Your task to perform on an android device: turn on translation in the chrome app Image 0: 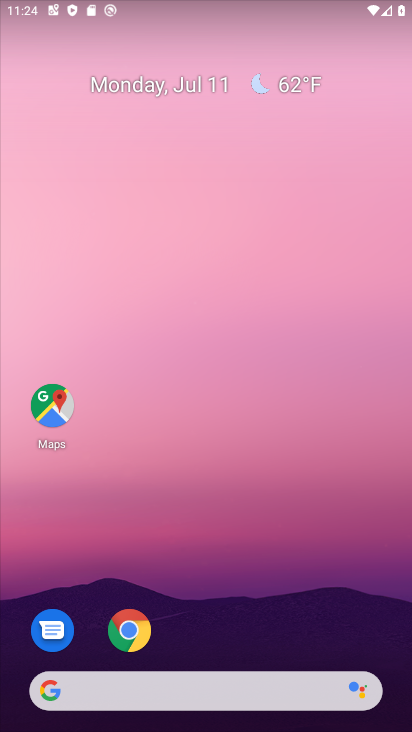
Step 0: drag from (207, 699) to (271, 30)
Your task to perform on an android device: turn on translation in the chrome app Image 1: 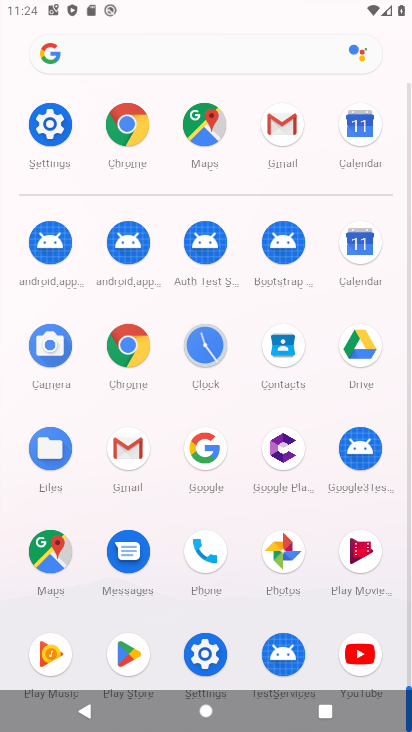
Step 1: click (131, 344)
Your task to perform on an android device: turn on translation in the chrome app Image 2: 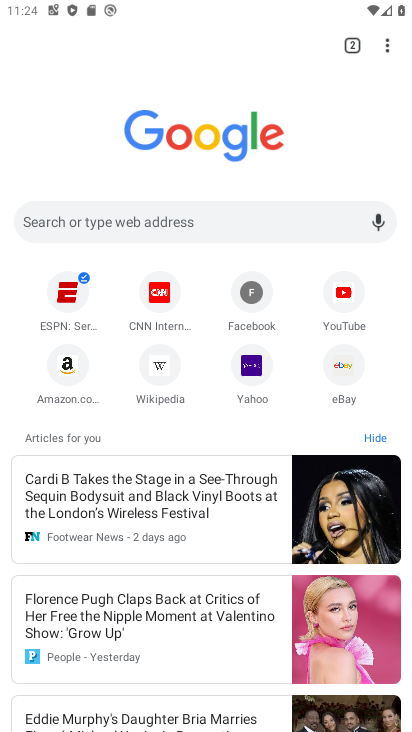
Step 2: drag from (384, 42) to (225, 394)
Your task to perform on an android device: turn on translation in the chrome app Image 3: 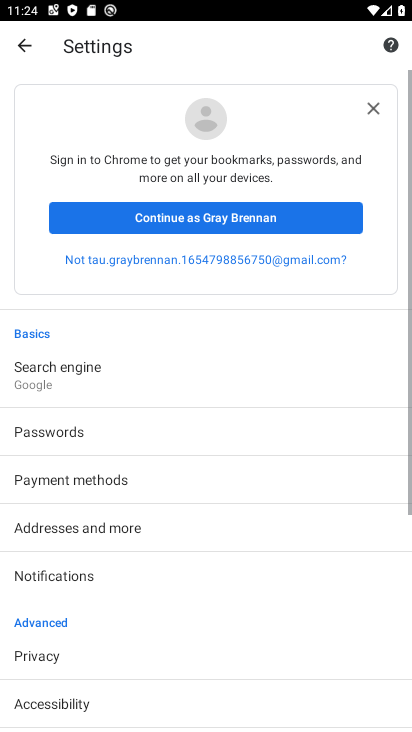
Step 3: drag from (177, 615) to (265, 193)
Your task to perform on an android device: turn on translation in the chrome app Image 4: 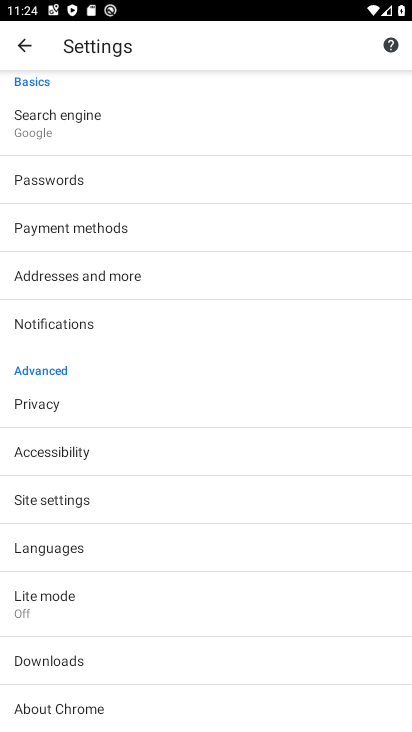
Step 4: click (96, 546)
Your task to perform on an android device: turn on translation in the chrome app Image 5: 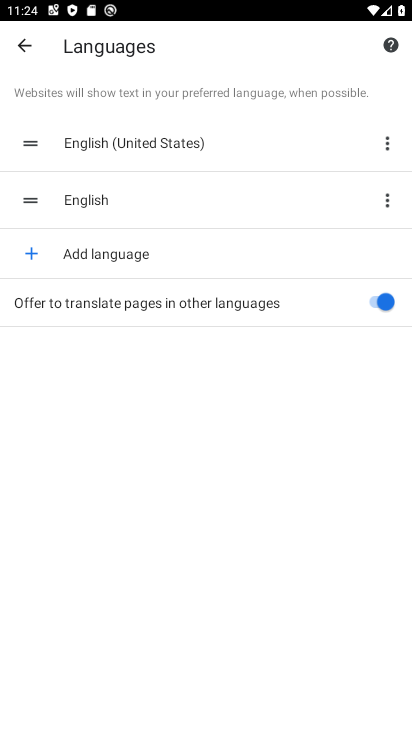
Step 5: task complete